Your task to perform on an android device: Open display settings Image 0: 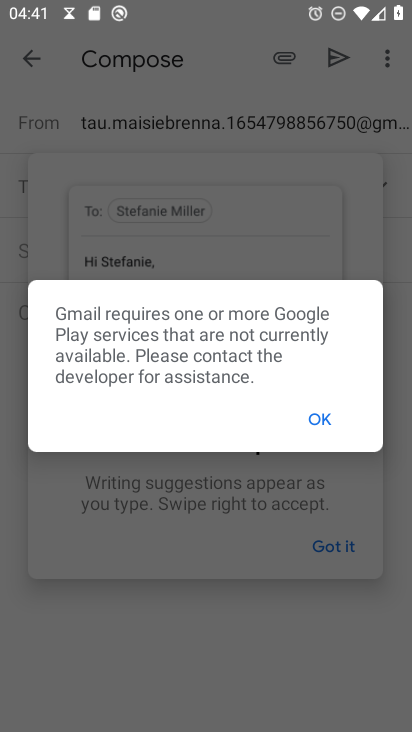
Step 0: press home button
Your task to perform on an android device: Open display settings Image 1: 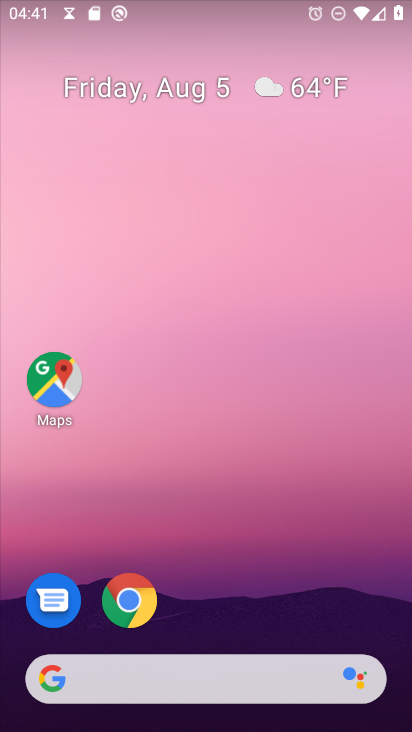
Step 1: drag from (206, 685) to (218, 225)
Your task to perform on an android device: Open display settings Image 2: 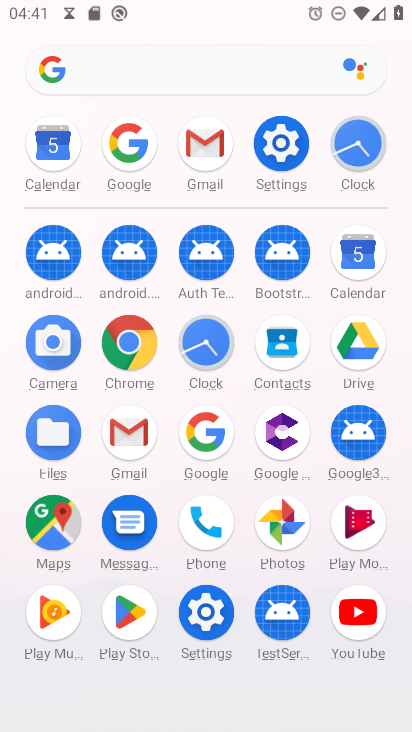
Step 2: click (283, 143)
Your task to perform on an android device: Open display settings Image 3: 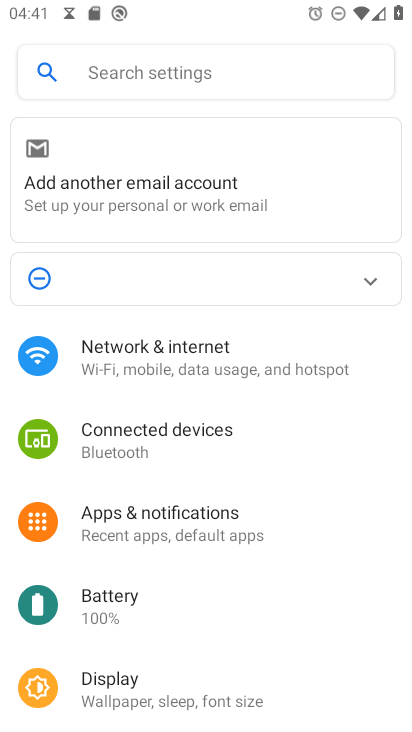
Step 3: drag from (246, 627) to (340, 421)
Your task to perform on an android device: Open display settings Image 4: 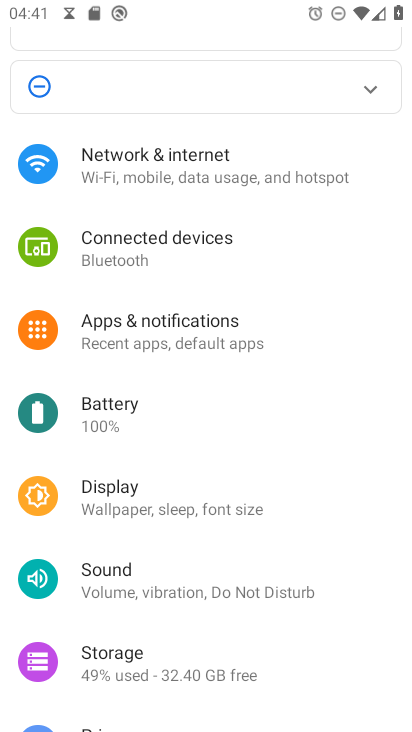
Step 4: click (231, 507)
Your task to perform on an android device: Open display settings Image 5: 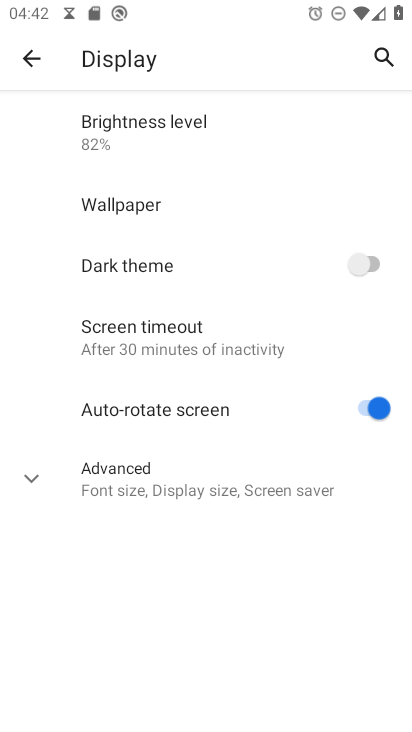
Step 5: task complete